Your task to perform on an android device: Check the weather Image 0: 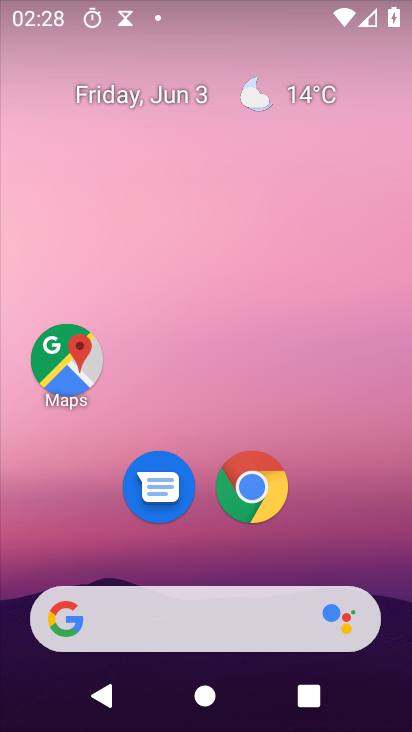
Step 0: click (300, 100)
Your task to perform on an android device: Check the weather Image 1: 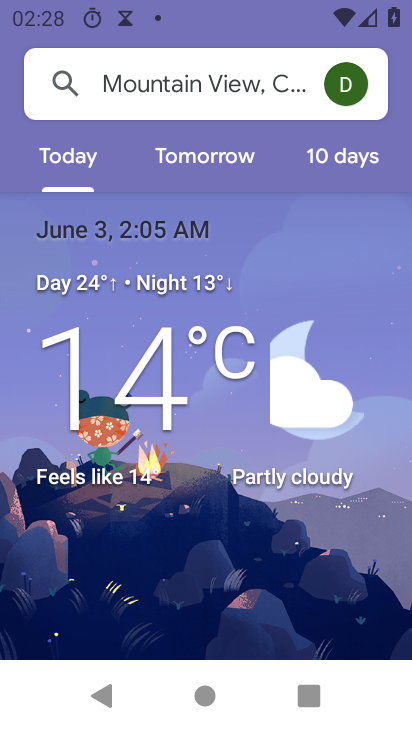
Step 1: task complete